Your task to perform on an android device: toggle javascript in the chrome app Image 0: 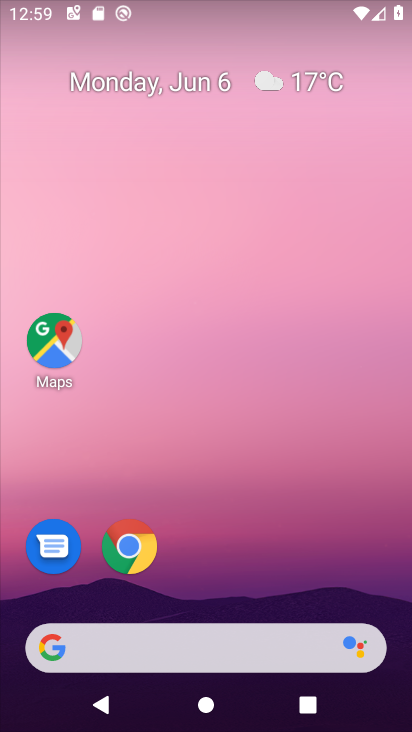
Step 0: click (130, 567)
Your task to perform on an android device: toggle javascript in the chrome app Image 1: 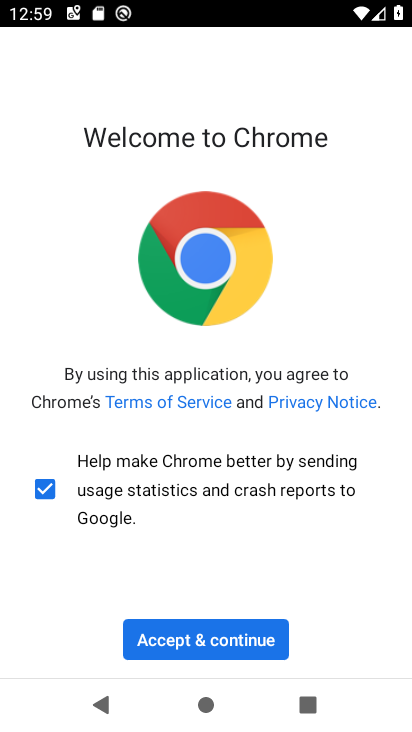
Step 1: click (241, 653)
Your task to perform on an android device: toggle javascript in the chrome app Image 2: 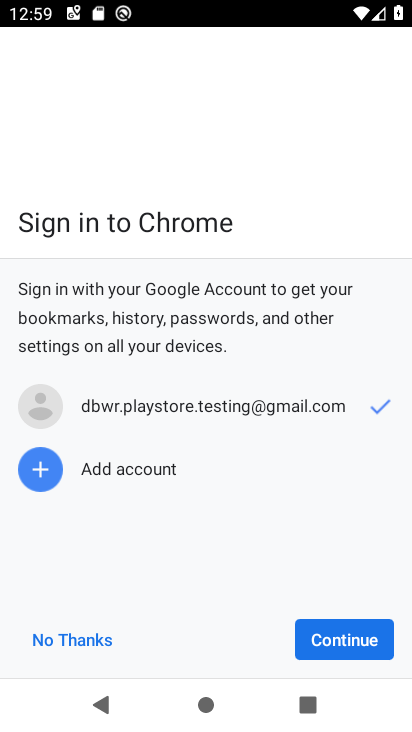
Step 2: click (336, 641)
Your task to perform on an android device: toggle javascript in the chrome app Image 3: 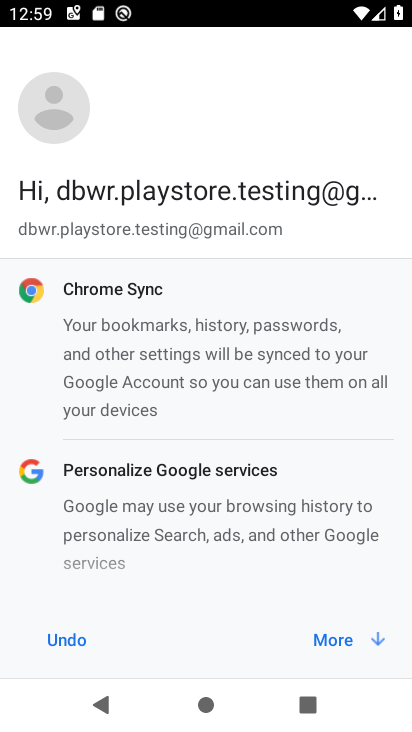
Step 3: click (336, 641)
Your task to perform on an android device: toggle javascript in the chrome app Image 4: 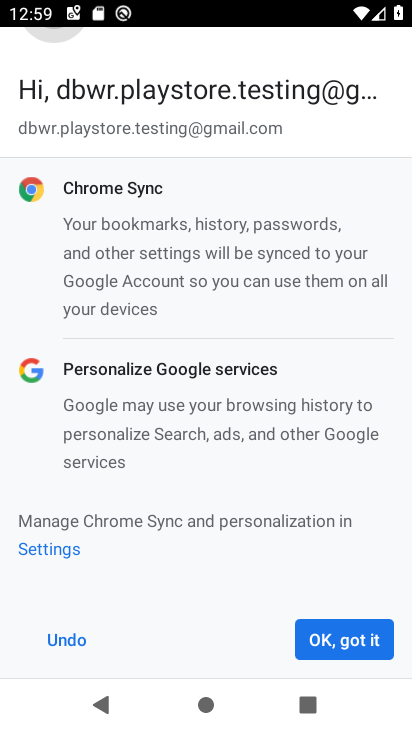
Step 4: click (336, 641)
Your task to perform on an android device: toggle javascript in the chrome app Image 5: 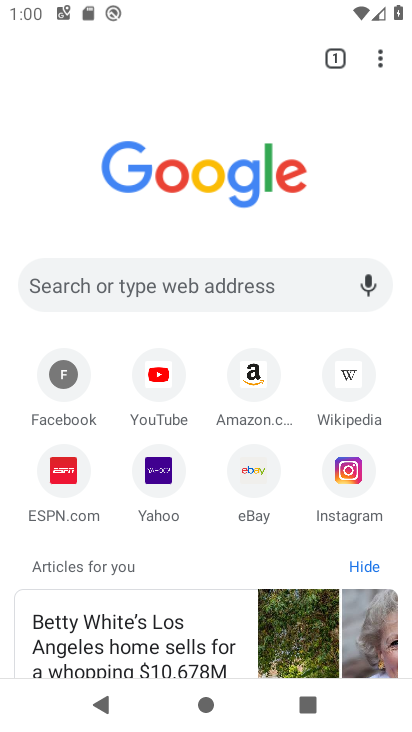
Step 5: drag from (376, 59) to (206, 499)
Your task to perform on an android device: toggle javascript in the chrome app Image 6: 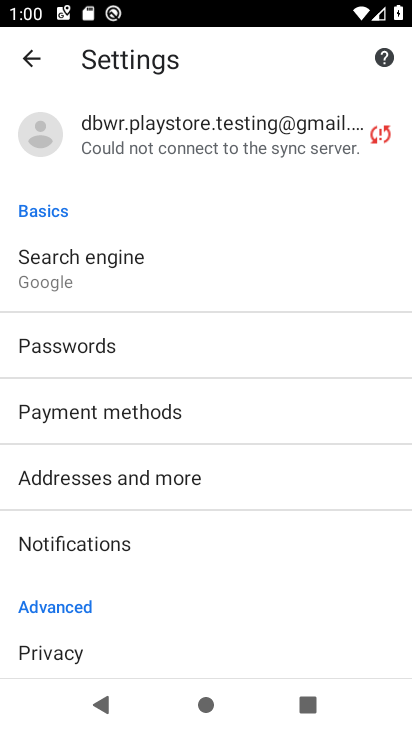
Step 6: drag from (154, 530) to (125, 182)
Your task to perform on an android device: toggle javascript in the chrome app Image 7: 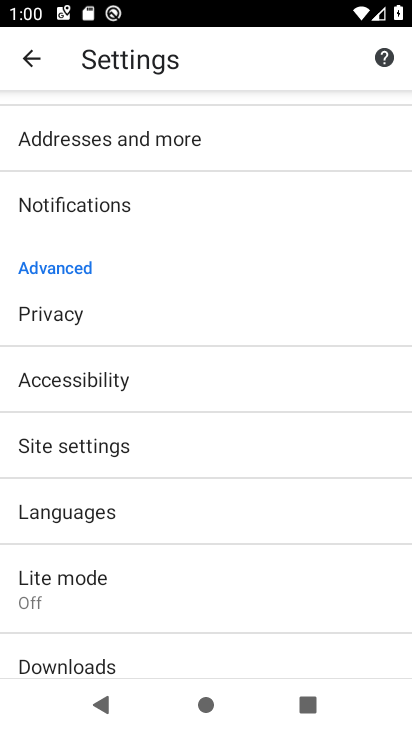
Step 7: click (100, 455)
Your task to perform on an android device: toggle javascript in the chrome app Image 8: 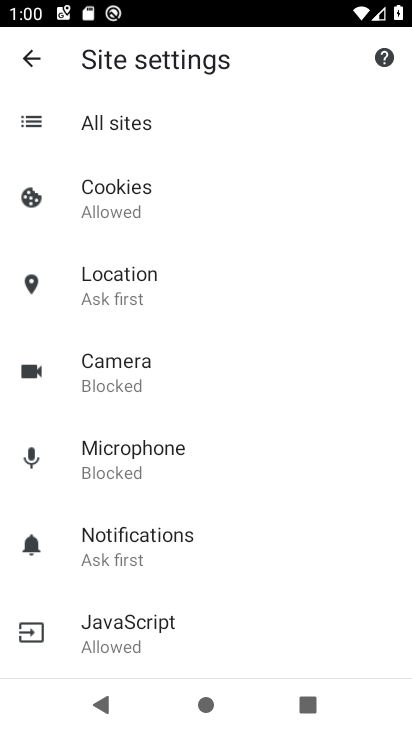
Step 8: click (170, 634)
Your task to perform on an android device: toggle javascript in the chrome app Image 9: 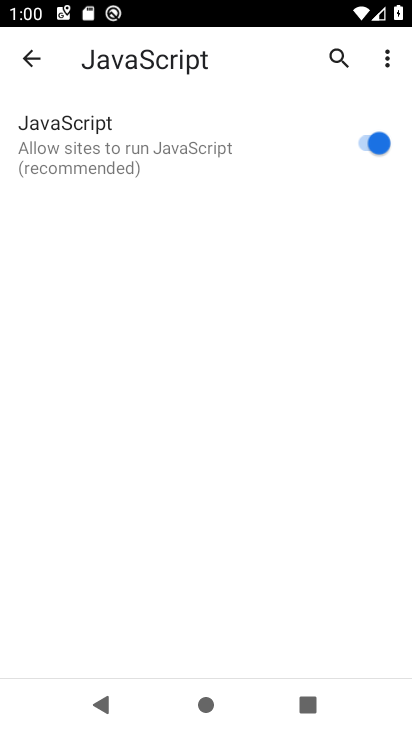
Step 9: click (364, 145)
Your task to perform on an android device: toggle javascript in the chrome app Image 10: 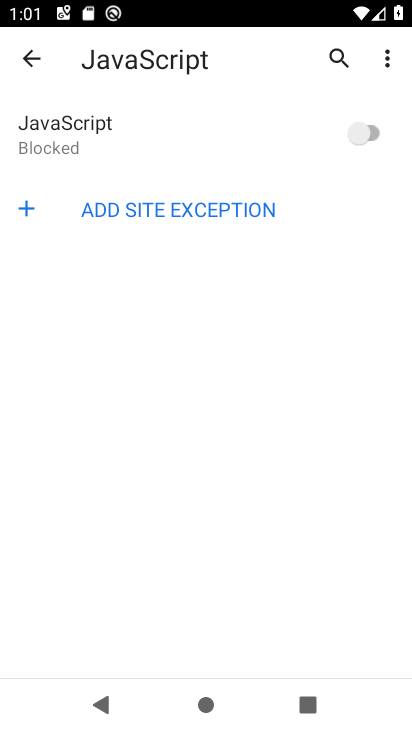
Step 10: task complete